Your task to perform on an android device: change the clock style Image 0: 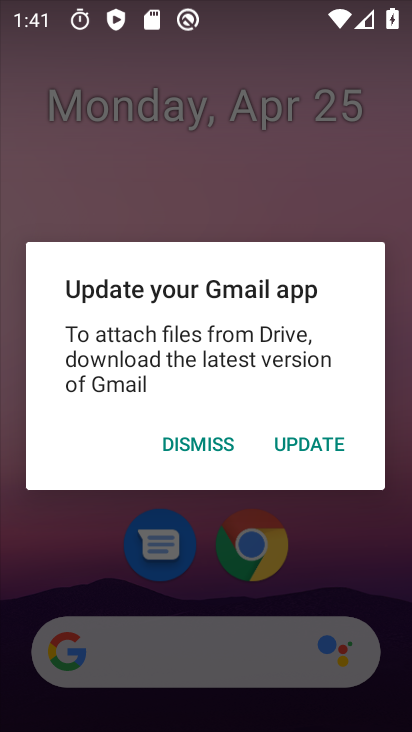
Step 0: press home button
Your task to perform on an android device: change the clock style Image 1: 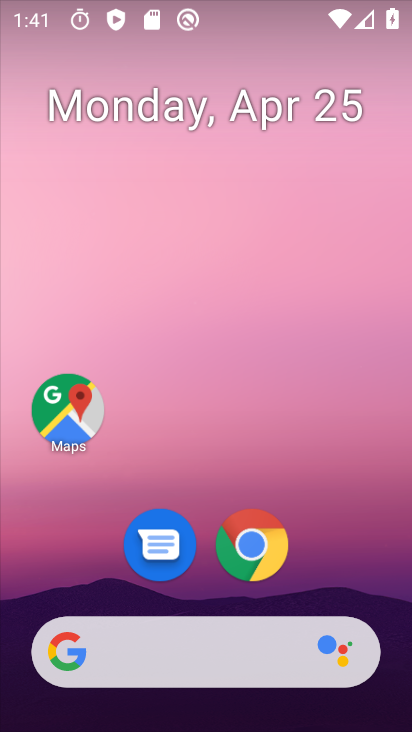
Step 1: drag from (310, 561) to (289, 54)
Your task to perform on an android device: change the clock style Image 2: 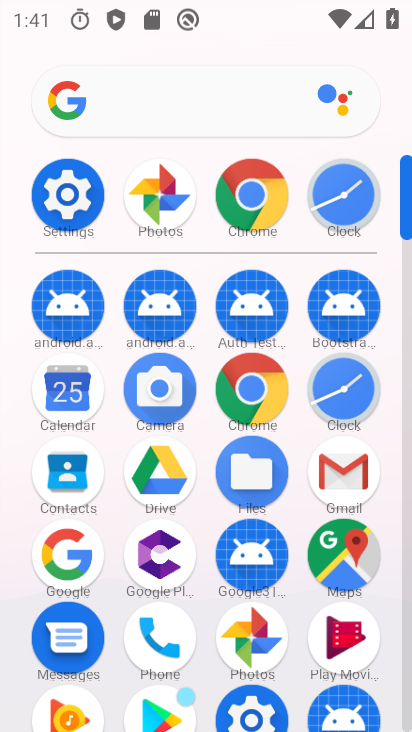
Step 2: click (340, 203)
Your task to perform on an android device: change the clock style Image 3: 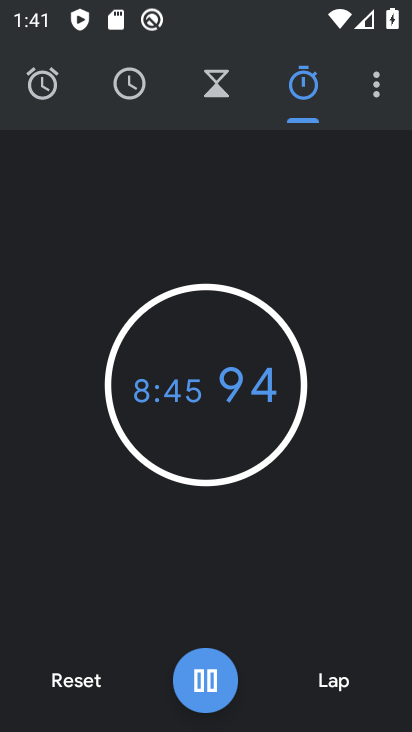
Step 3: click (376, 87)
Your task to perform on an android device: change the clock style Image 4: 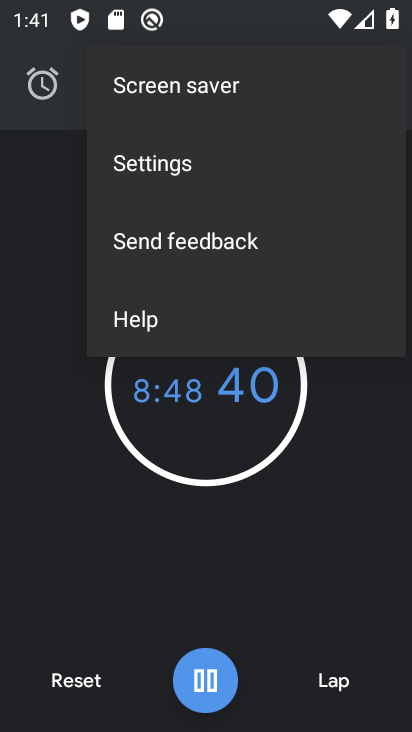
Step 4: click (131, 165)
Your task to perform on an android device: change the clock style Image 5: 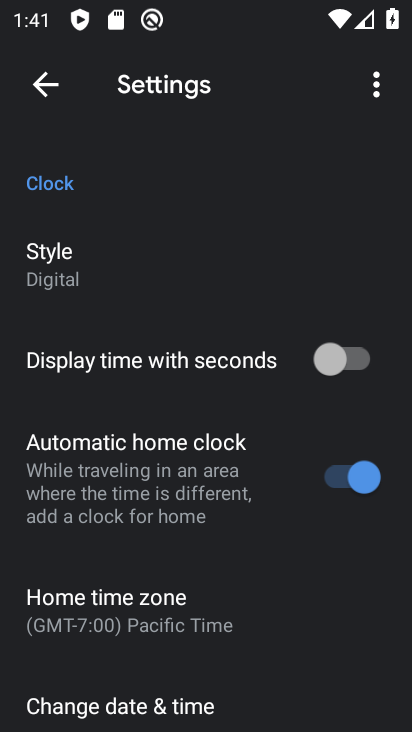
Step 5: click (74, 284)
Your task to perform on an android device: change the clock style Image 6: 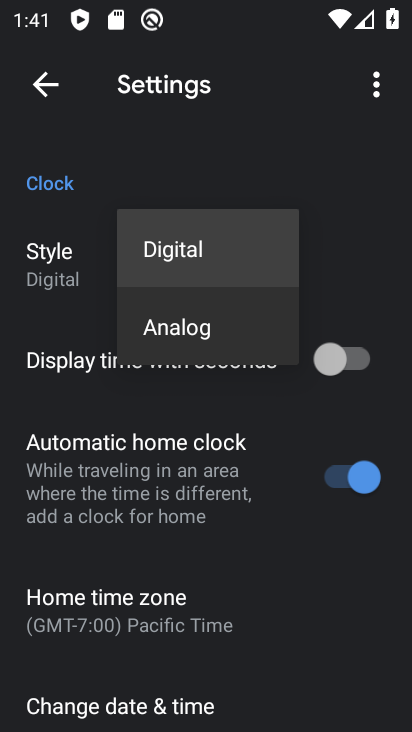
Step 6: click (192, 312)
Your task to perform on an android device: change the clock style Image 7: 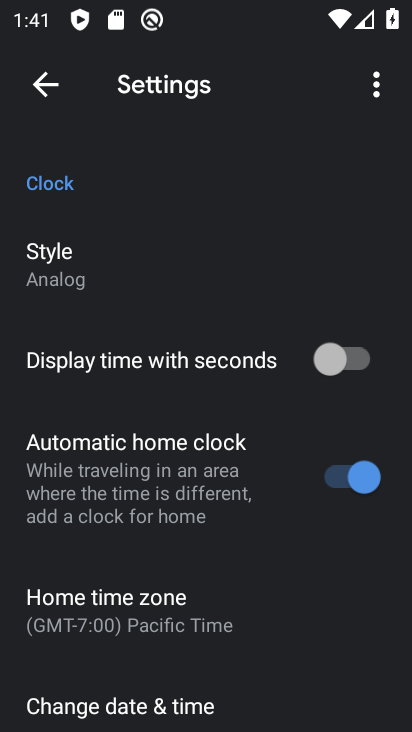
Step 7: task complete